Your task to perform on an android device: Check the weather Image 0: 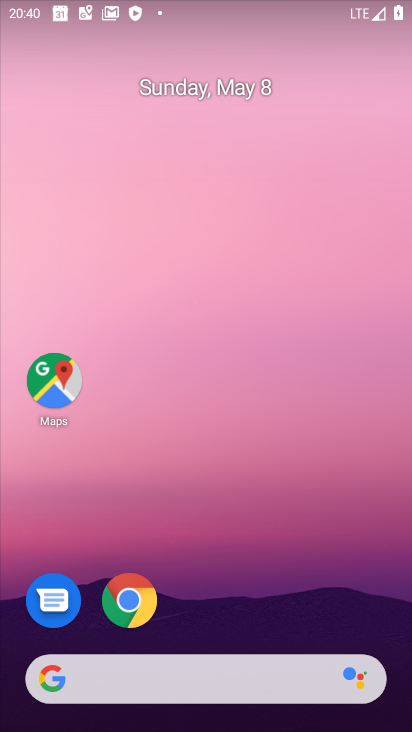
Step 0: drag from (289, 698) to (352, 142)
Your task to perform on an android device: Check the weather Image 1: 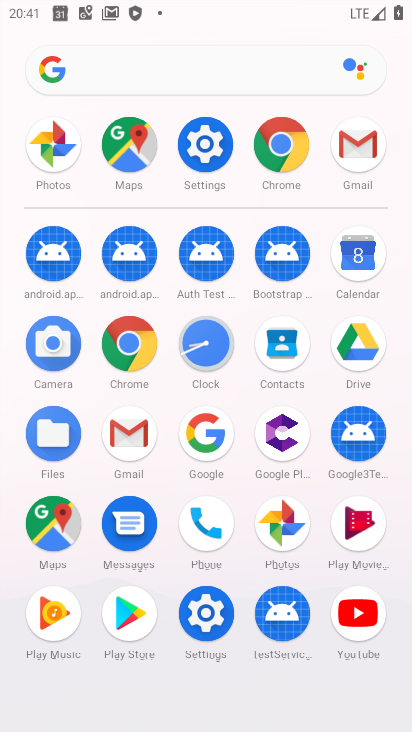
Step 1: click (127, 73)
Your task to perform on an android device: Check the weather Image 2: 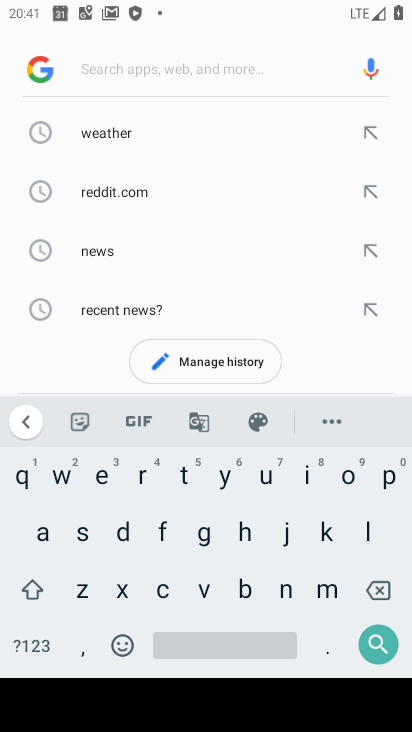
Step 2: click (109, 132)
Your task to perform on an android device: Check the weather Image 3: 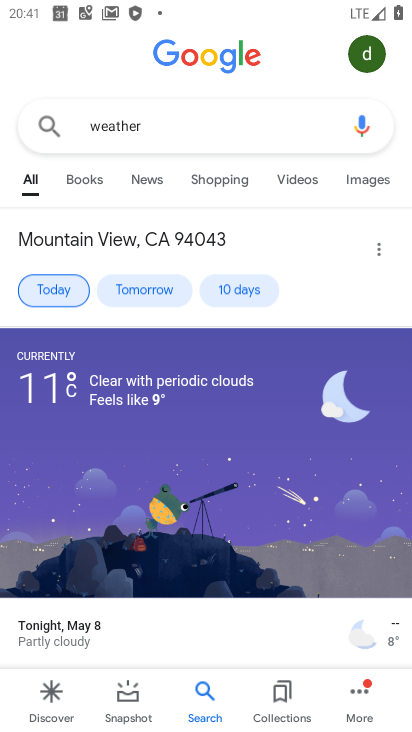
Step 3: task complete